Your task to perform on an android device: change the clock style Image 0: 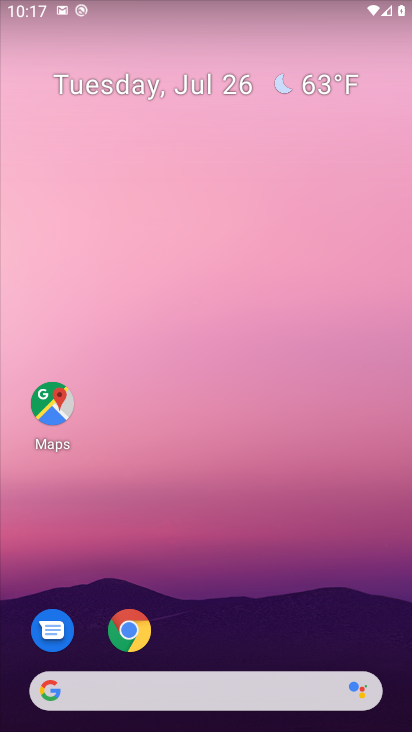
Step 0: press home button
Your task to perform on an android device: change the clock style Image 1: 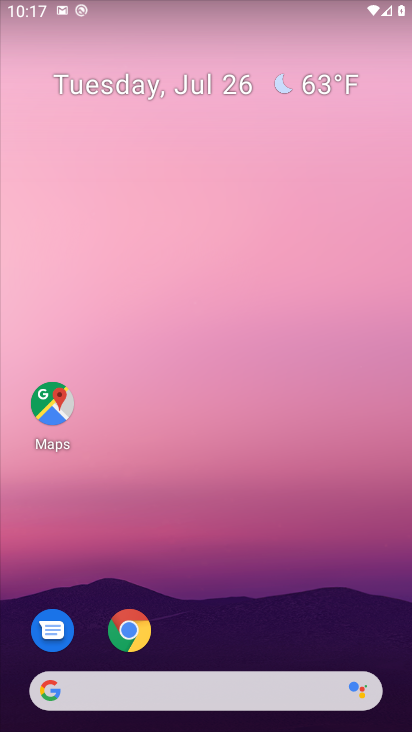
Step 1: drag from (215, 647) to (253, 2)
Your task to perform on an android device: change the clock style Image 2: 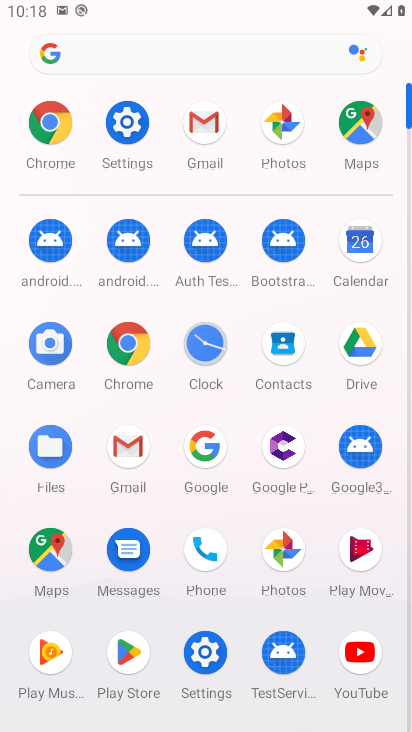
Step 2: click (200, 337)
Your task to perform on an android device: change the clock style Image 3: 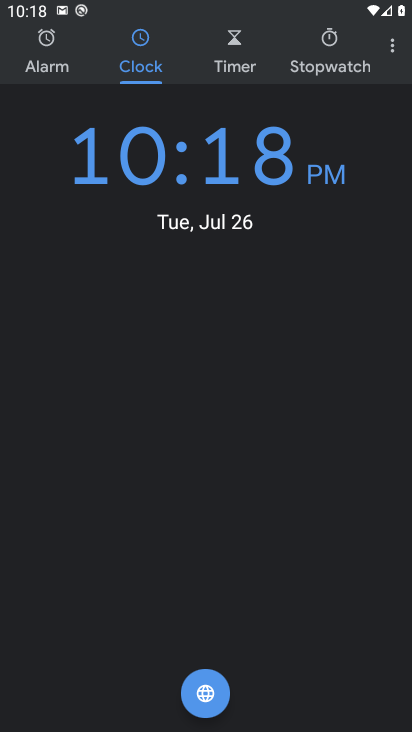
Step 3: click (392, 46)
Your task to perform on an android device: change the clock style Image 4: 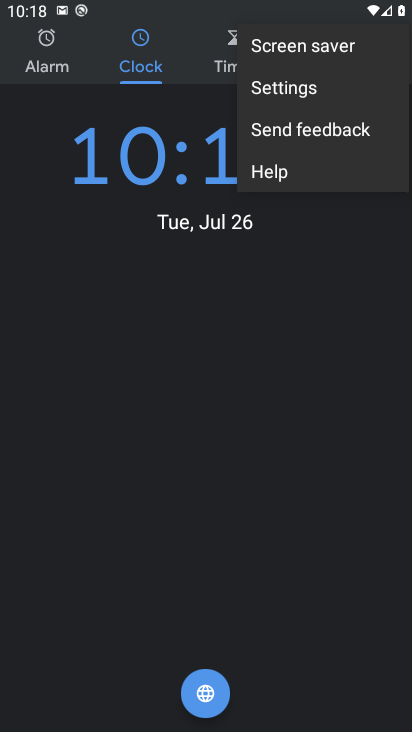
Step 4: click (295, 91)
Your task to perform on an android device: change the clock style Image 5: 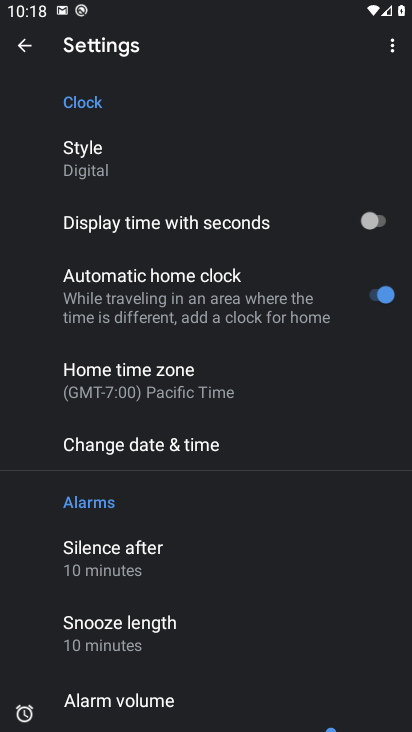
Step 5: click (127, 158)
Your task to perform on an android device: change the clock style Image 6: 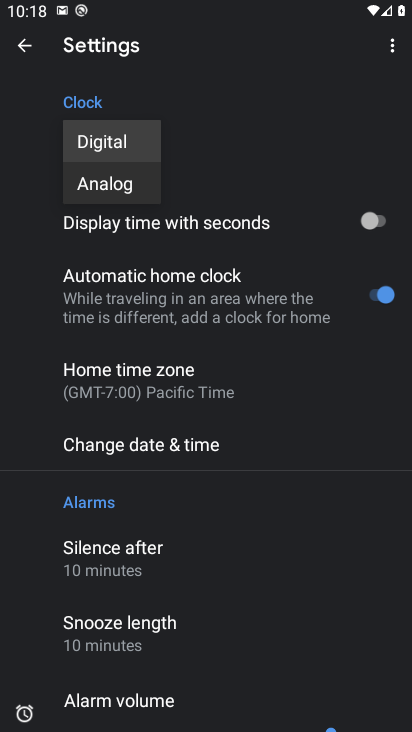
Step 6: click (135, 188)
Your task to perform on an android device: change the clock style Image 7: 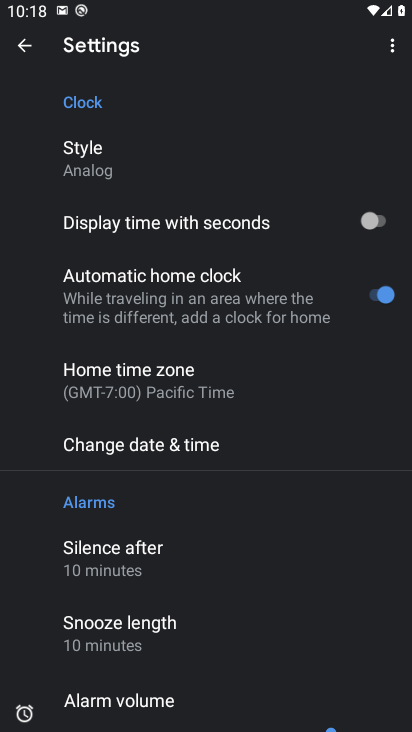
Step 7: task complete